Your task to perform on an android device: turn off sleep mode Image 0: 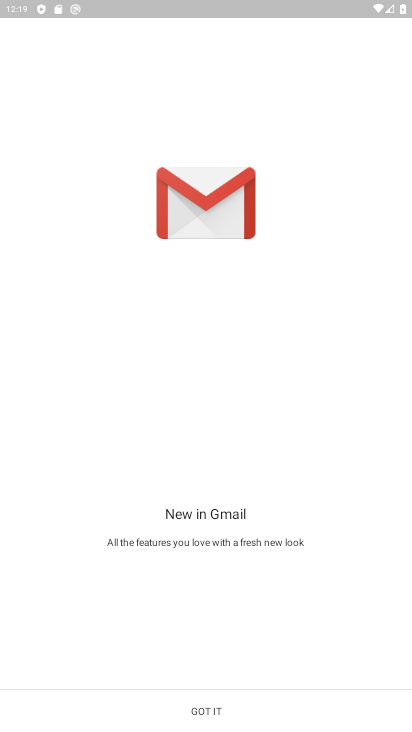
Step 0: press home button
Your task to perform on an android device: turn off sleep mode Image 1: 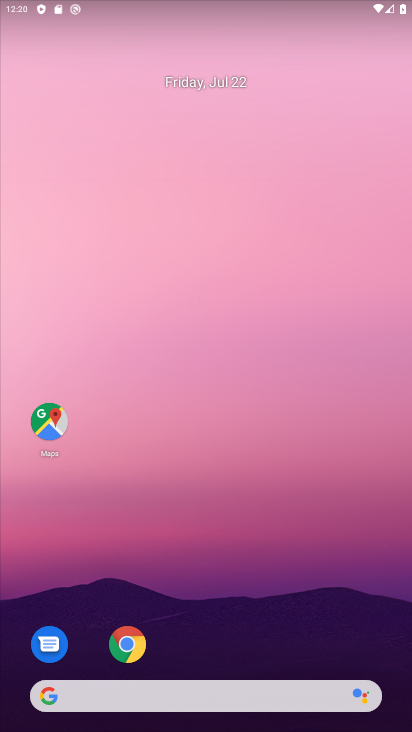
Step 1: drag from (215, 606) to (396, 12)
Your task to perform on an android device: turn off sleep mode Image 2: 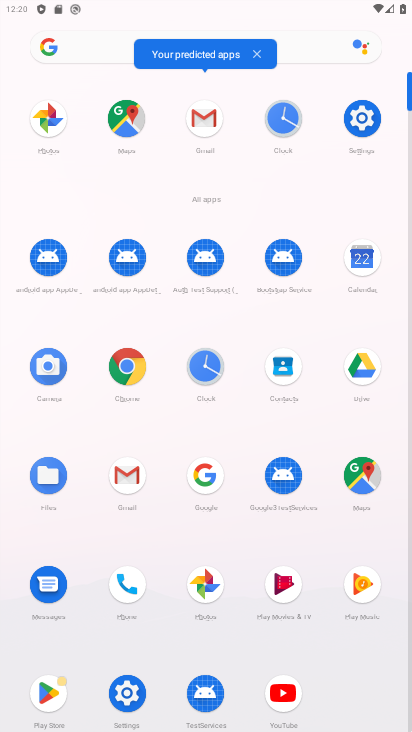
Step 2: click (353, 135)
Your task to perform on an android device: turn off sleep mode Image 3: 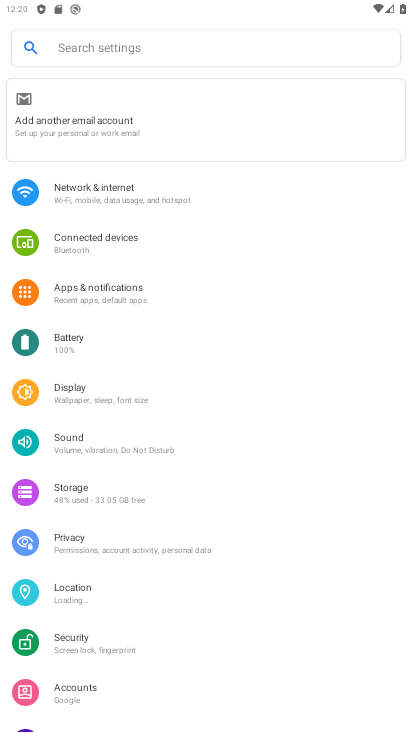
Step 3: task complete